Your task to perform on an android device: turn on improve location accuracy Image 0: 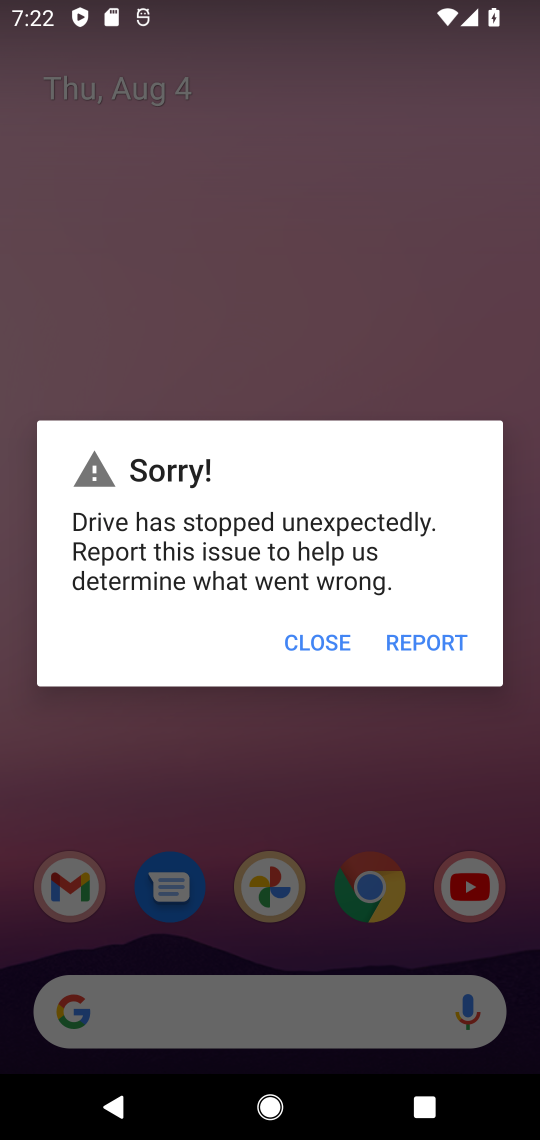
Step 0: click (325, 650)
Your task to perform on an android device: turn on improve location accuracy Image 1: 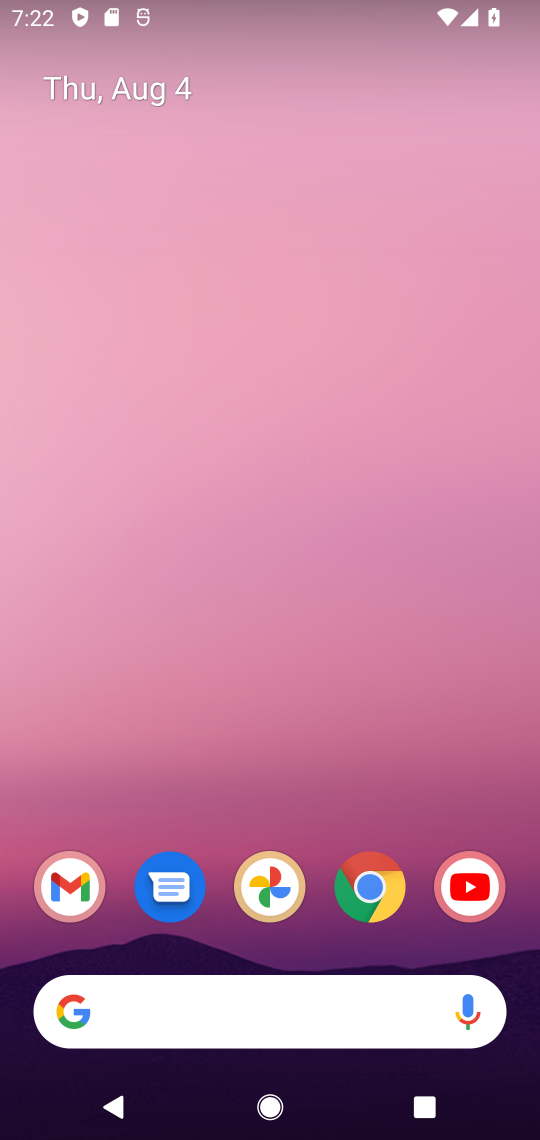
Step 1: drag from (283, 960) to (283, 246)
Your task to perform on an android device: turn on improve location accuracy Image 2: 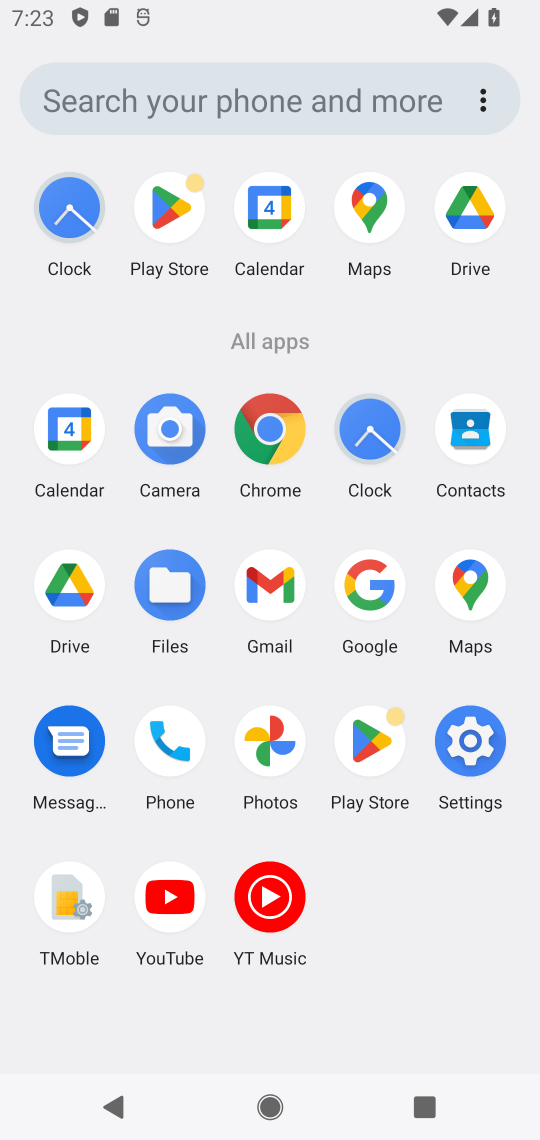
Step 2: click (481, 745)
Your task to perform on an android device: turn on improve location accuracy Image 3: 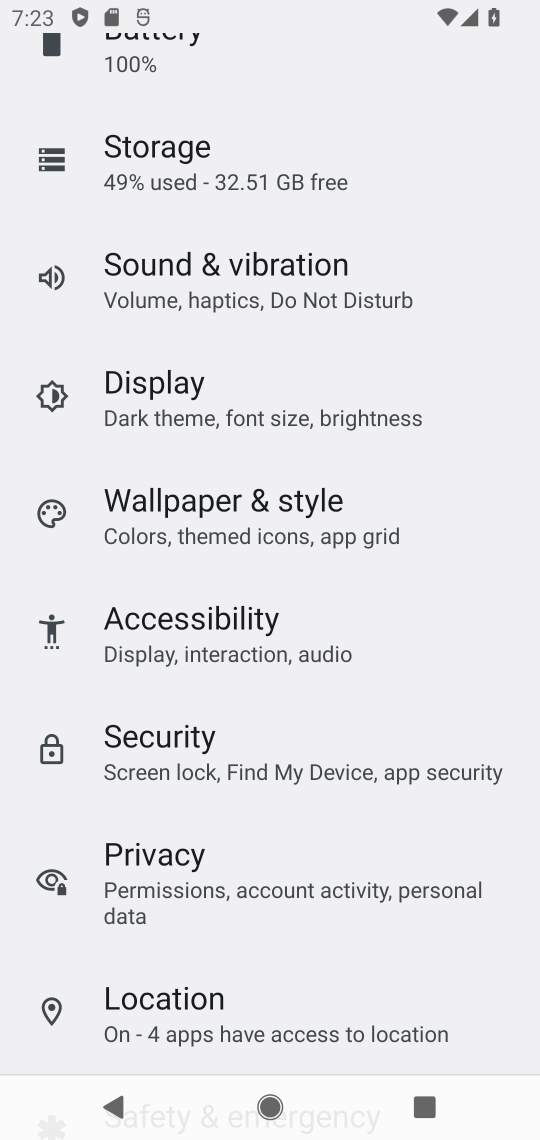
Step 3: click (173, 1013)
Your task to perform on an android device: turn on improve location accuracy Image 4: 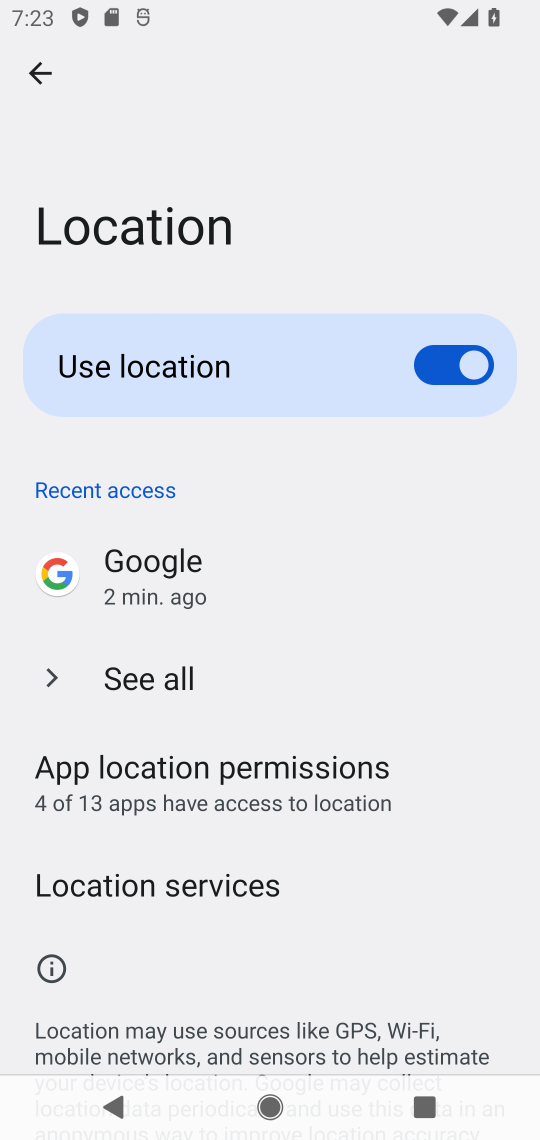
Step 4: drag from (140, 978) to (149, 429)
Your task to perform on an android device: turn on improve location accuracy Image 5: 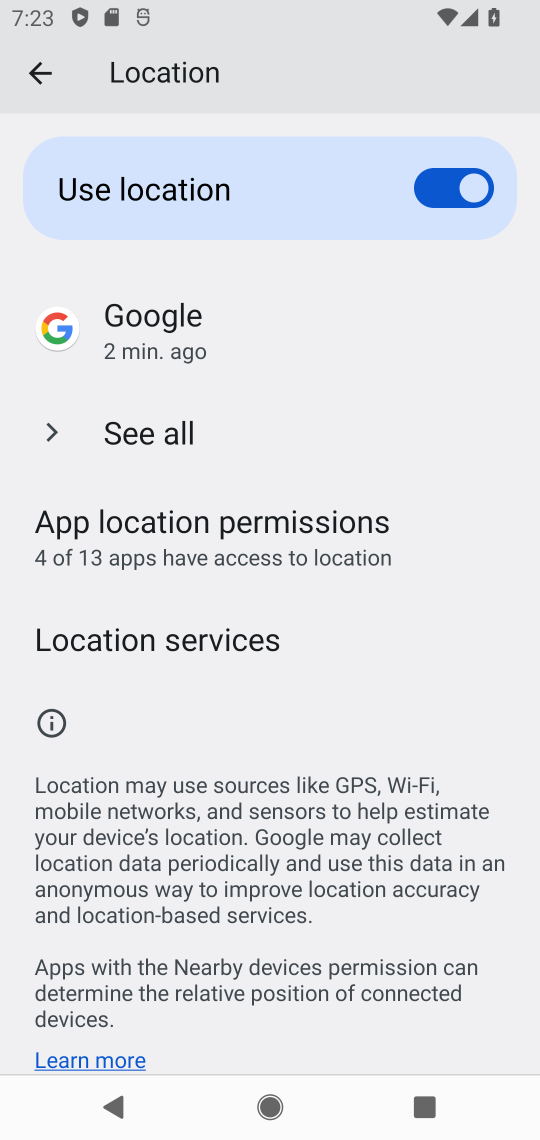
Step 5: click (187, 651)
Your task to perform on an android device: turn on improve location accuracy Image 6: 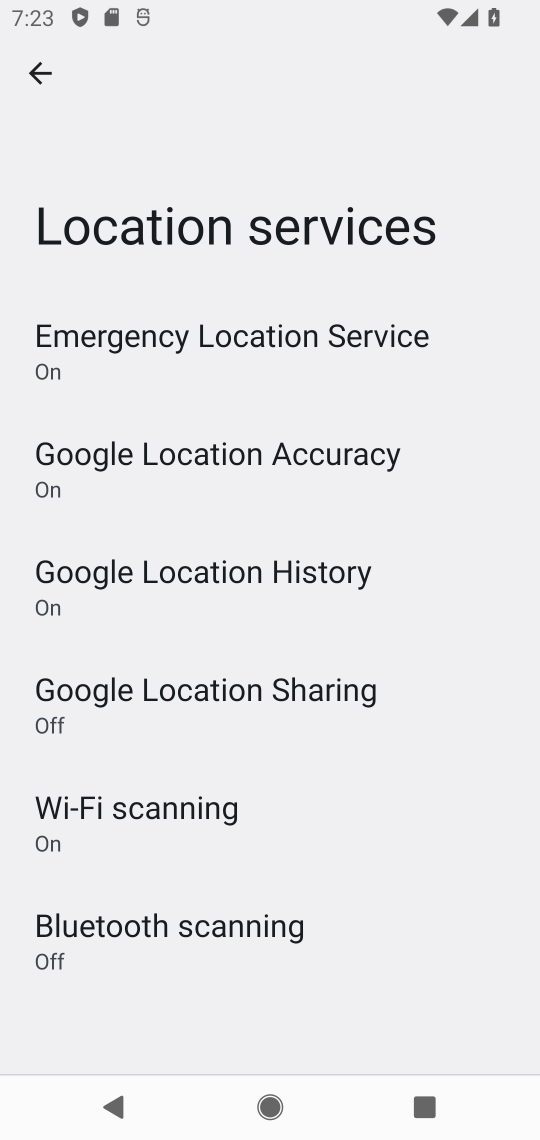
Step 6: click (189, 453)
Your task to perform on an android device: turn on improve location accuracy Image 7: 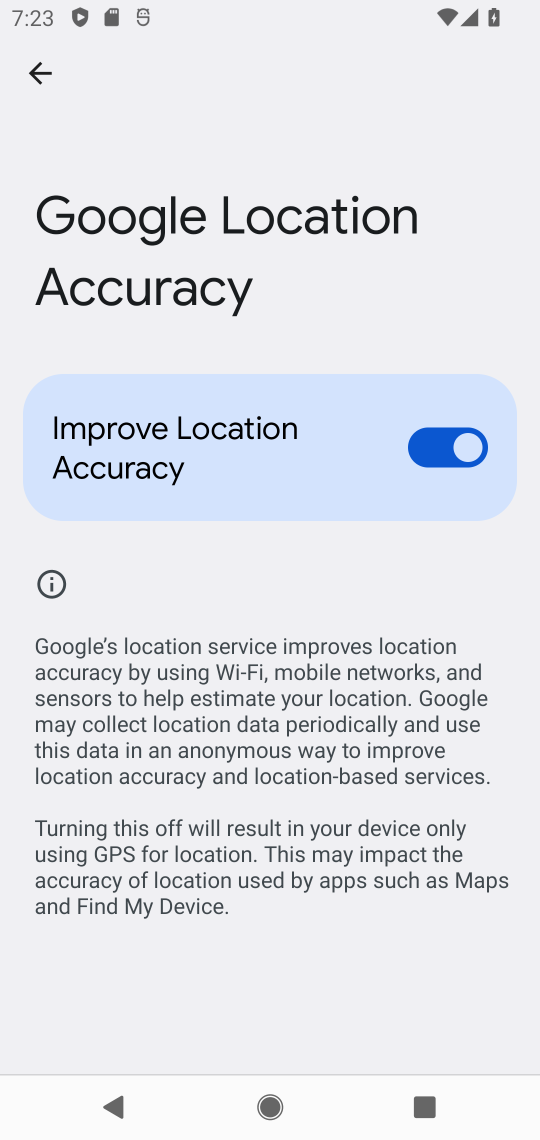
Step 7: task complete